Your task to perform on an android device: Open Google Chrome and click the shortcut for Amazon.com Image 0: 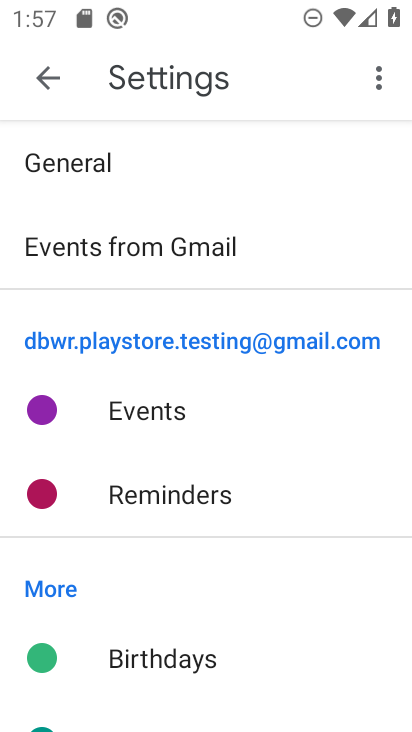
Step 0: press home button
Your task to perform on an android device: Open Google Chrome and click the shortcut for Amazon.com Image 1: 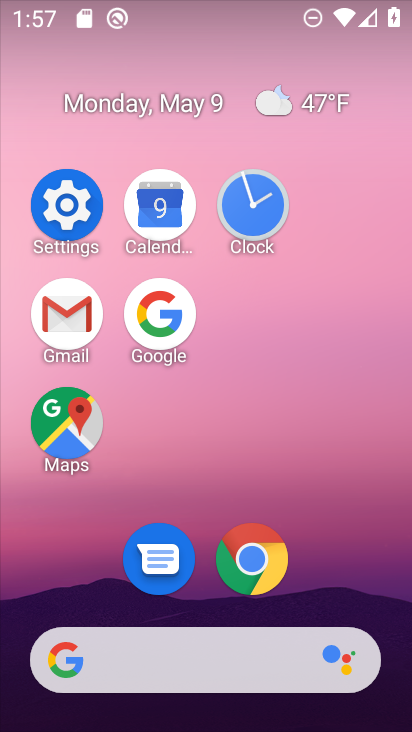
Step 1: click (249, 551)
Your task to perform on an android device: Open Google Chrome and click the shortcut for Amazon.com Image 2: 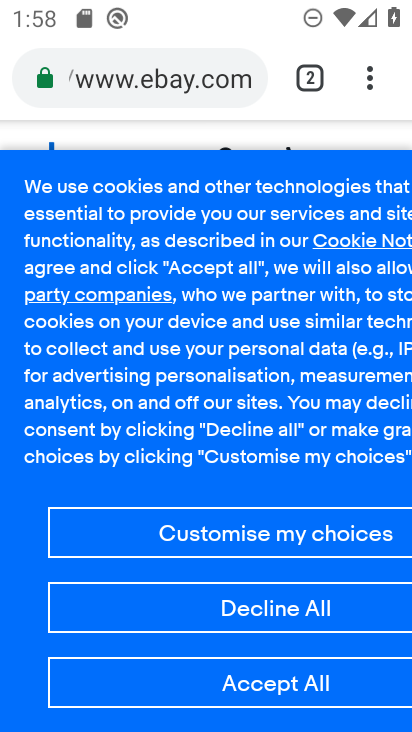
Step 2: click (315, 63)
Your task to perform on an android device: Open Google Chrome and click the shortcut for Amazon.com Image 3: 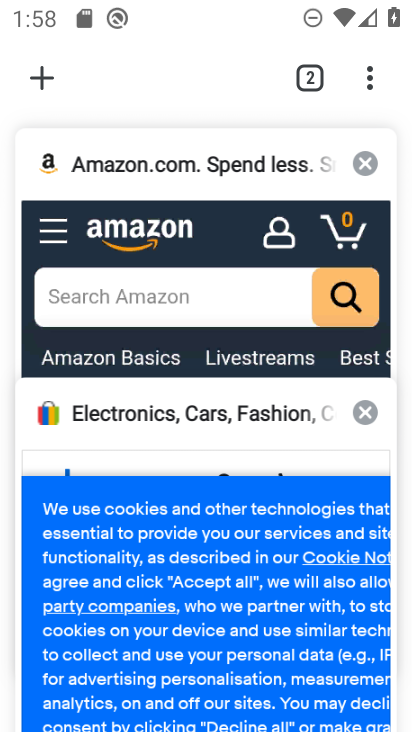
Step 3: click (194, 202)
Your task to perform on an android device: Open Google Chrome and click the shortcut for Amazon.com Image 4: 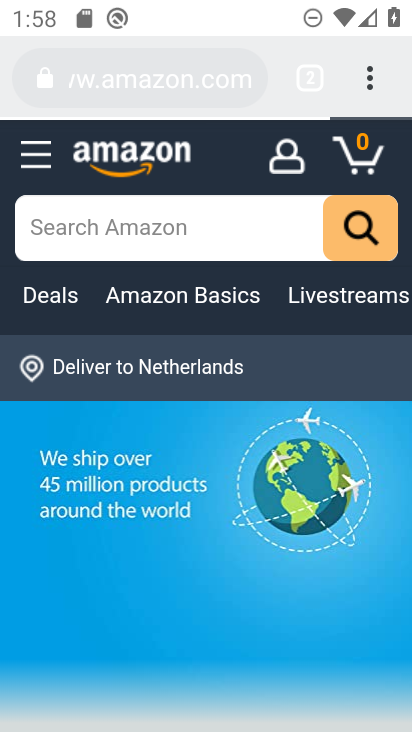
Step 4: click (376, 75)
Your task to perform on an android device: Open Google Chrome and click the shortcut for Amazon.com Image 5: 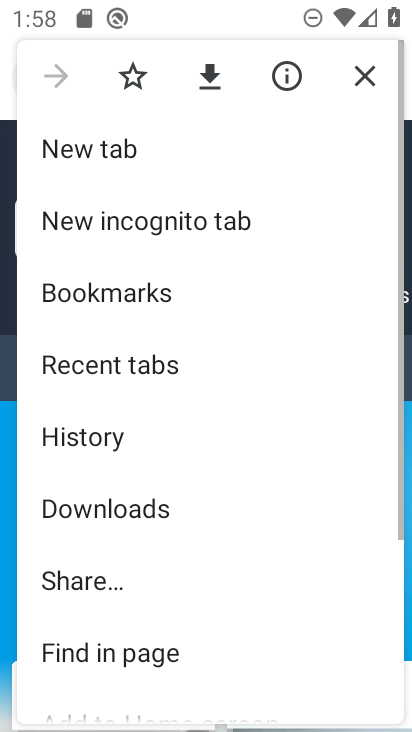
Step 5: drag from (228, 514) to (284, 179)
Your task to perform on an android device: Open Google Chrome and click the shortcut for Amazon.com Image 6: 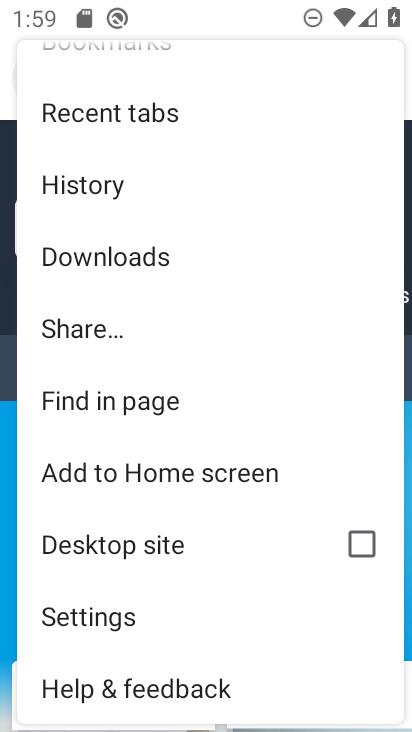
Step 6: click (233, 467)
Your task to perform on an android device: Open Google Chrome and click the shortcut for Amazon.com Image 7: 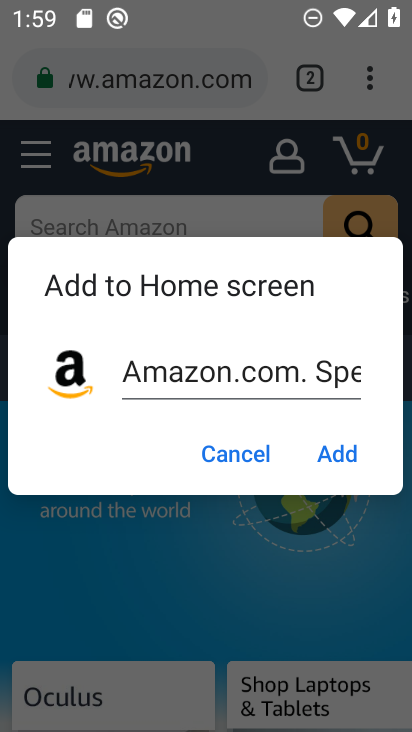
Step 7: click (334, 443)
Your task to perform on an android device: Open Google Chrome and click the shortcut for Amazon.com Image 8: 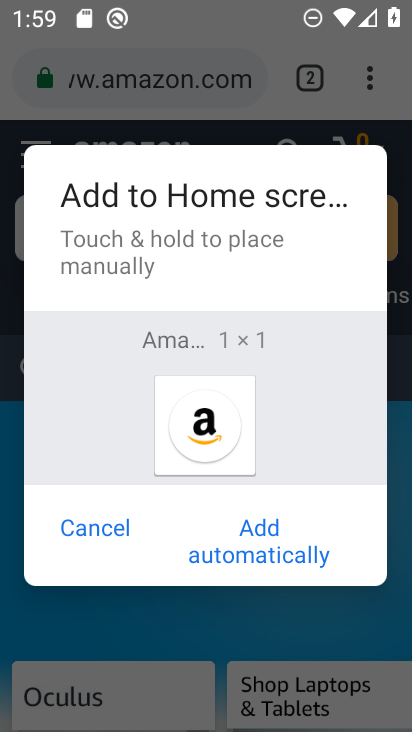
Step 8: click (265, 529)
Your task to perform on an android device: Open Google Chrome and click the shortcut for Amazon.com Image 9: 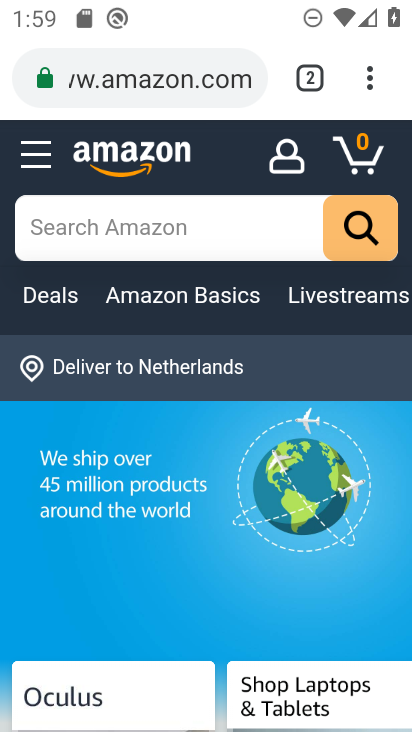
Step 9: task complete